Your task to perform on an android device: turn pop-ups off in chrome Image 0: 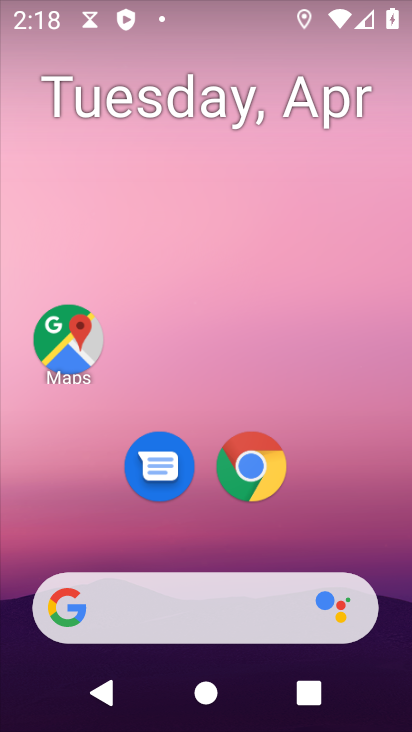
Step 0: drag from (383, 572) to (369, 135)
Your task to perform on an android device: turn pop-ups off in chrome Image 1: 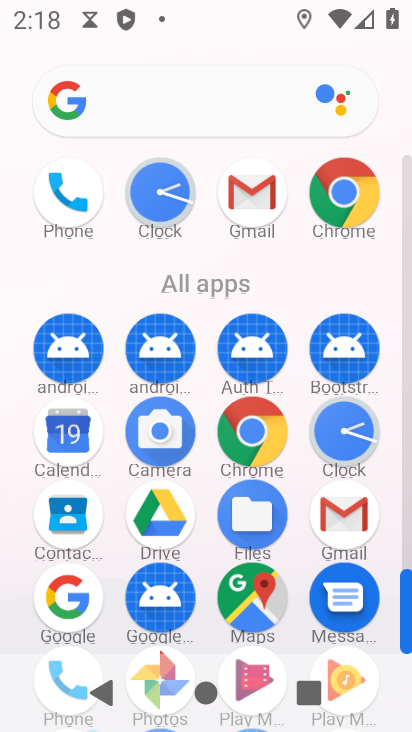
Step 1: drag from (14, 466) to (12, 264)
Your task to perform on an android device: turn pop-ups off in chrome Image 2: 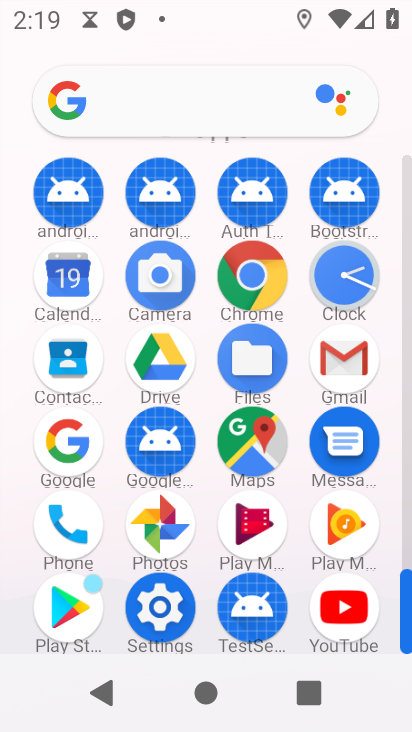
Step 2: click (251, 277)
Your task to perform on an android device: turn pop-ups off in chrome Image 3: 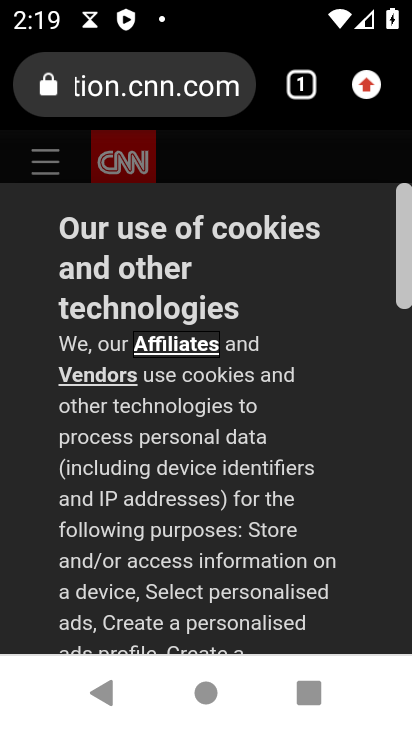
Step 3: drag from (359, 81) to (131, 511)
Your task to perform on an android device: turn pop-ups off in chrome Image 4: 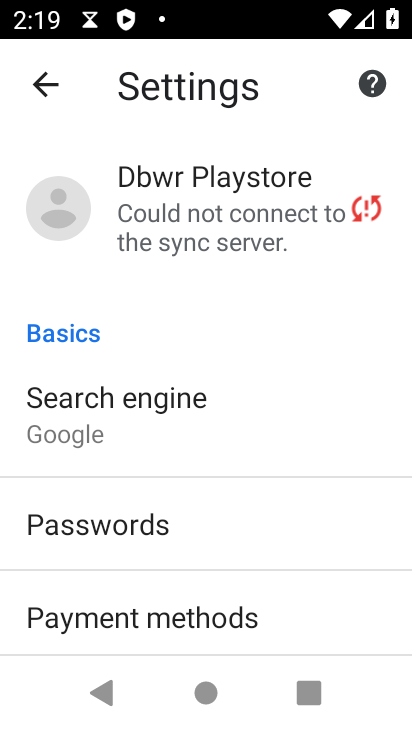
Step 4: drag from (232, 497) to (213, 162)
Your task to perform on an android device: turn pop-ups off in chrome Image 5: 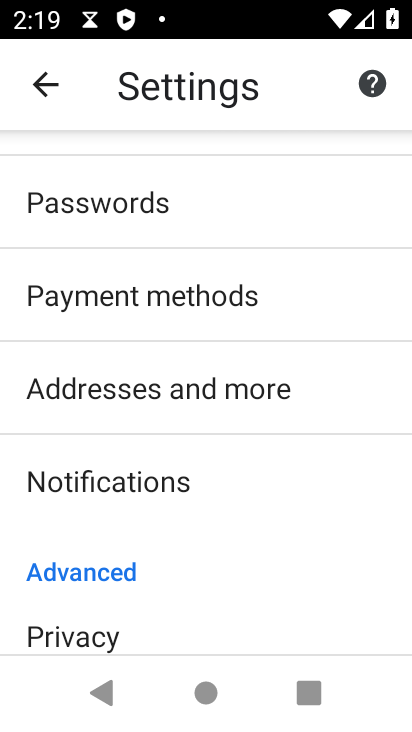
Step 5: drag from (217, 516) to (217, 296)
Your task to perform on an android device: turn pop-ups off in chrome Image 6: 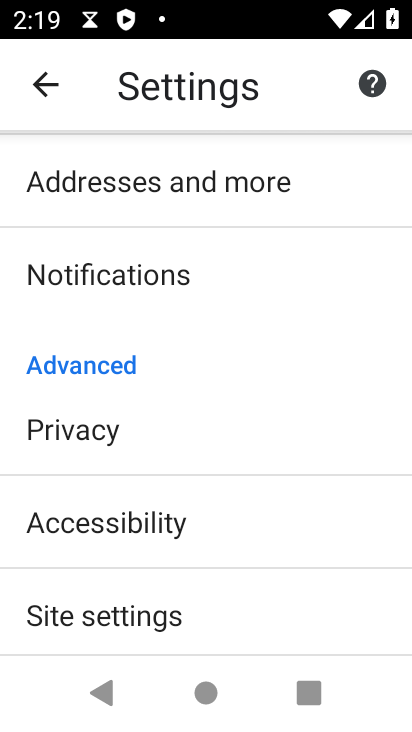
Step 6: drag from (173, 454) to (178, 289)
Your task to perform on an android device: turn pop-ups off in chrome Image 7: 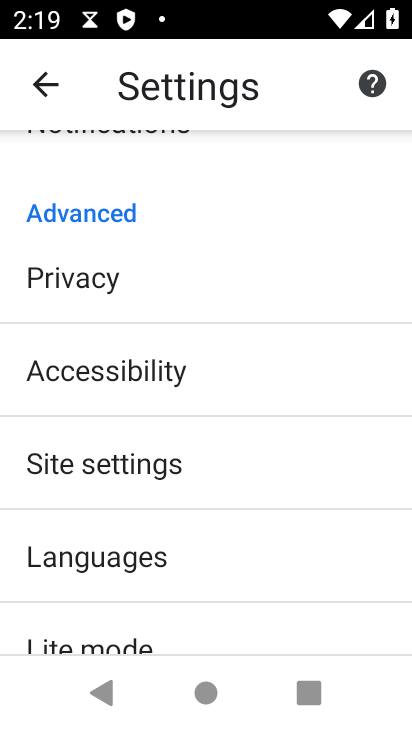
Step 7: drag from (120, 597) to (190, 287)
Your task to perform on an android device: turn pop-ups off in chrome Image 8: 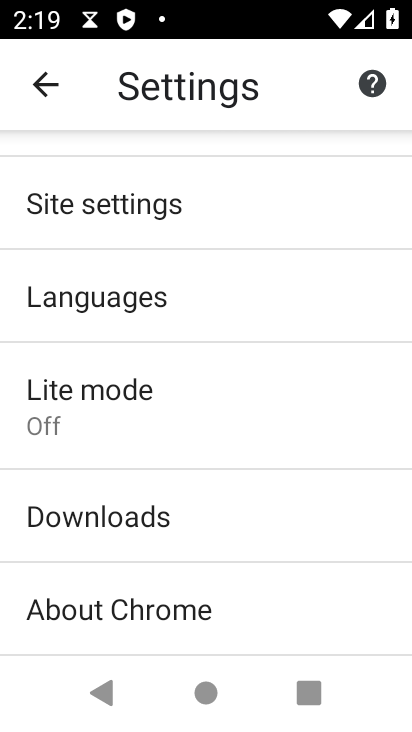
Step 8: drag from (132, 541) to (177, 255)
Your task to perform on an android device: turn pop-ups off in chrome Image 9: 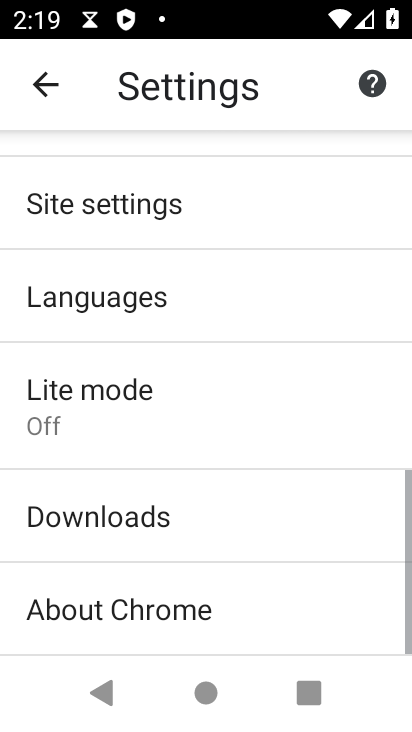
Step 9: drag from (206, 244) to (205, 510)
Your task to perform on an android device: turn pop-ups off in chrome Image 10: 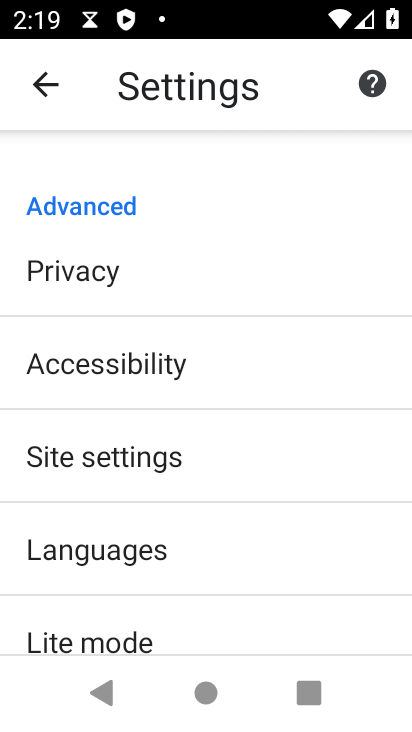
Step 10: click (151, 447)
Your task to perform on an android device: turn pop-ups off in chrome Image 11: 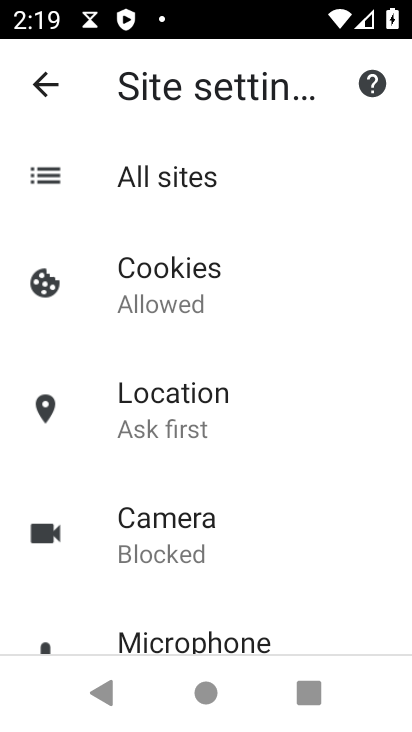
Step 11: drag from (233, 460) to (240, 228)
Your task to perform on an android device: turn pop-ups off in chrome Image 12: 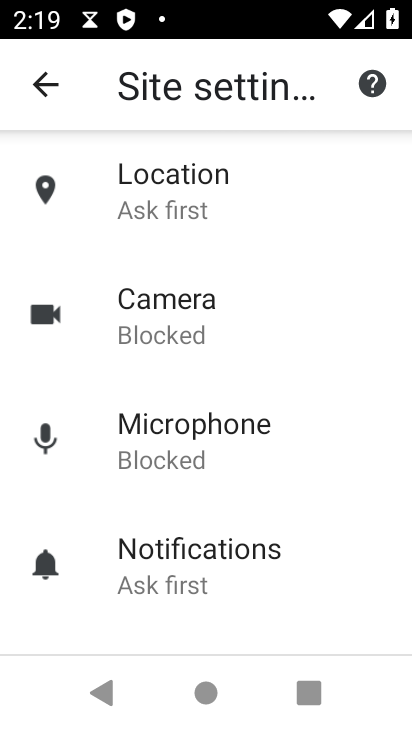
Step 12: drag from (258, 532) to (260, 195)
Your task to perform on an android device: turn pop-ups off in chrome Image 13: 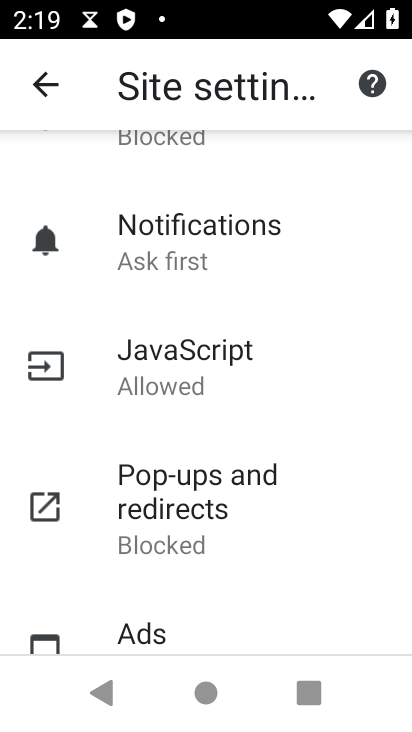
Step 13: click (247, 500)
Your task to perform on an android device: turn pop-ups off in chrome Image 14: 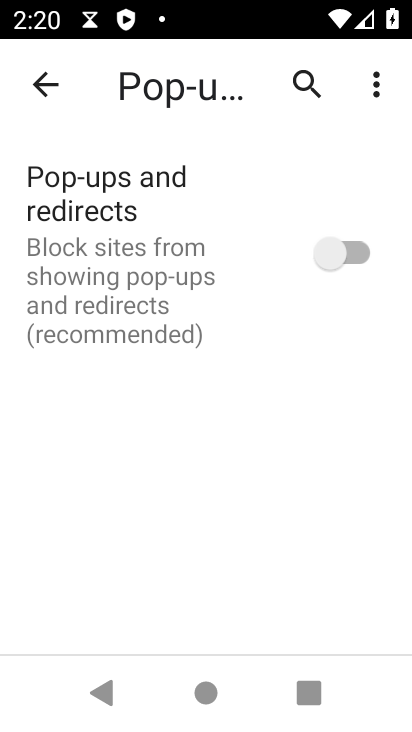
Step 14: task complete